Your task to perform on an android device: turn on javascript in the chrome app Image 0: 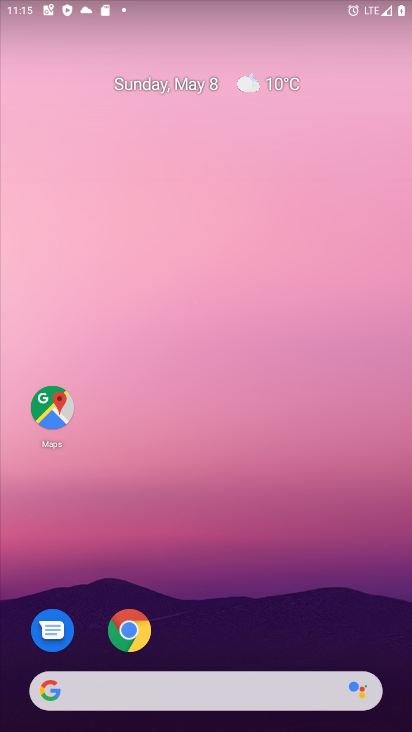
Step 0: drag from (371, 647) to (253, 69)
Your task to perform on an android device: turn on javascript in the chrome app Image 1: 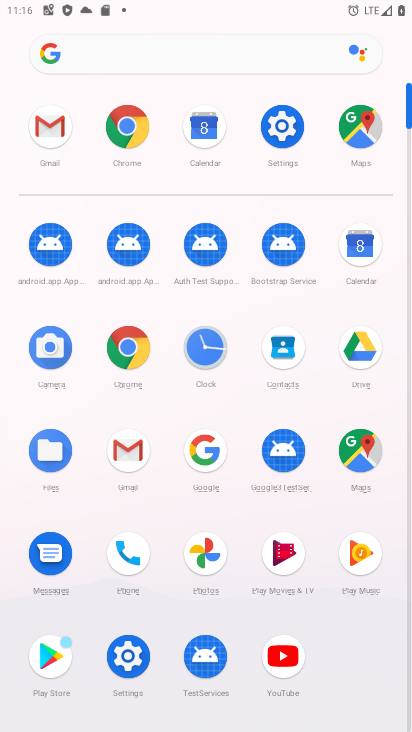
Step 1: click (126, 154)
Your task to perform on an android device: turn on javascript in the chrome app Image 2: 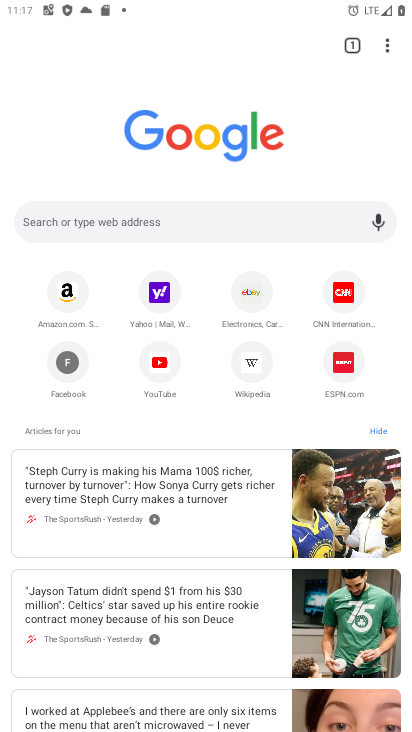
Step 2: click (384, 42)
Your task to perform on an android device: turn on javascript in the chrome app Image 3: 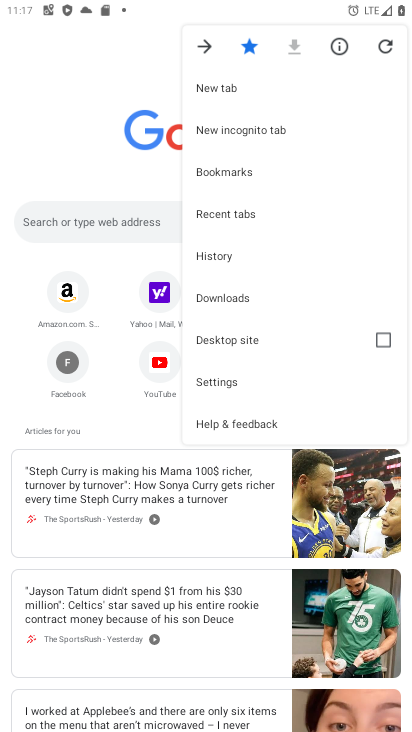
Step 3: click (260, 378)
Your task to perform on an android device: turn on javascript in the chrome app Image 4: 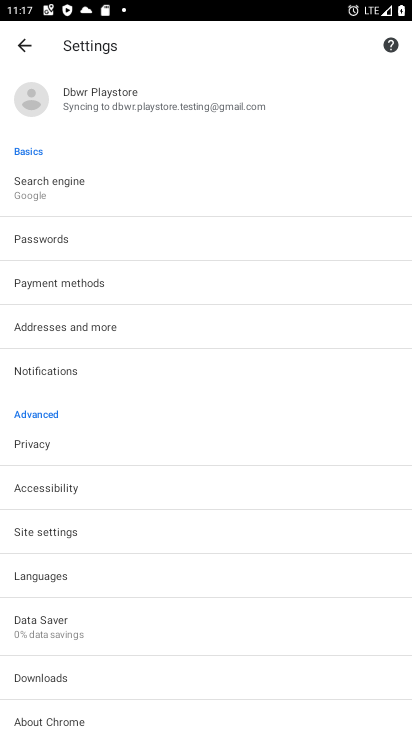
Step 4: click (127, 534)
Your task to perform on an android device: turn on javascript in the chrome app Image 5: 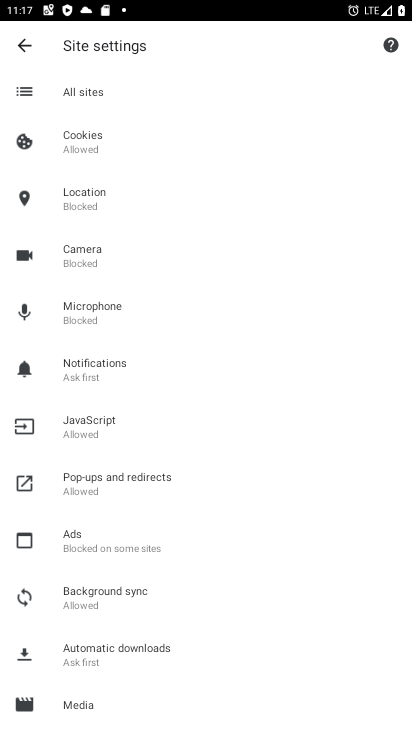
Step 5: click (119, 428)
Your task to perform on an android device: turn on javascript in the chrome app Image 6: 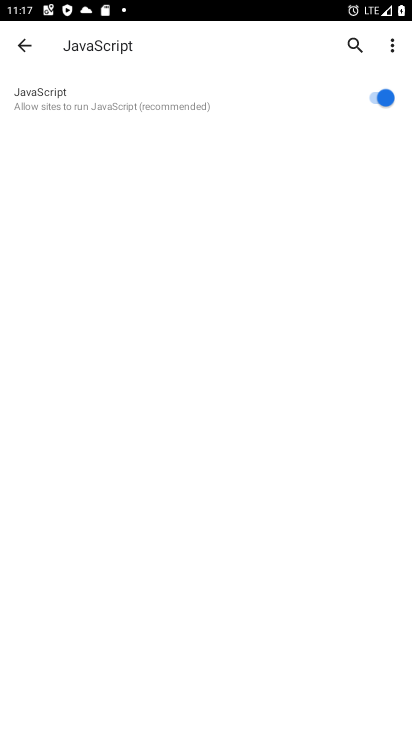
Step 6: task complete